Your task to perform on an android device: What's the weather? Image 0: 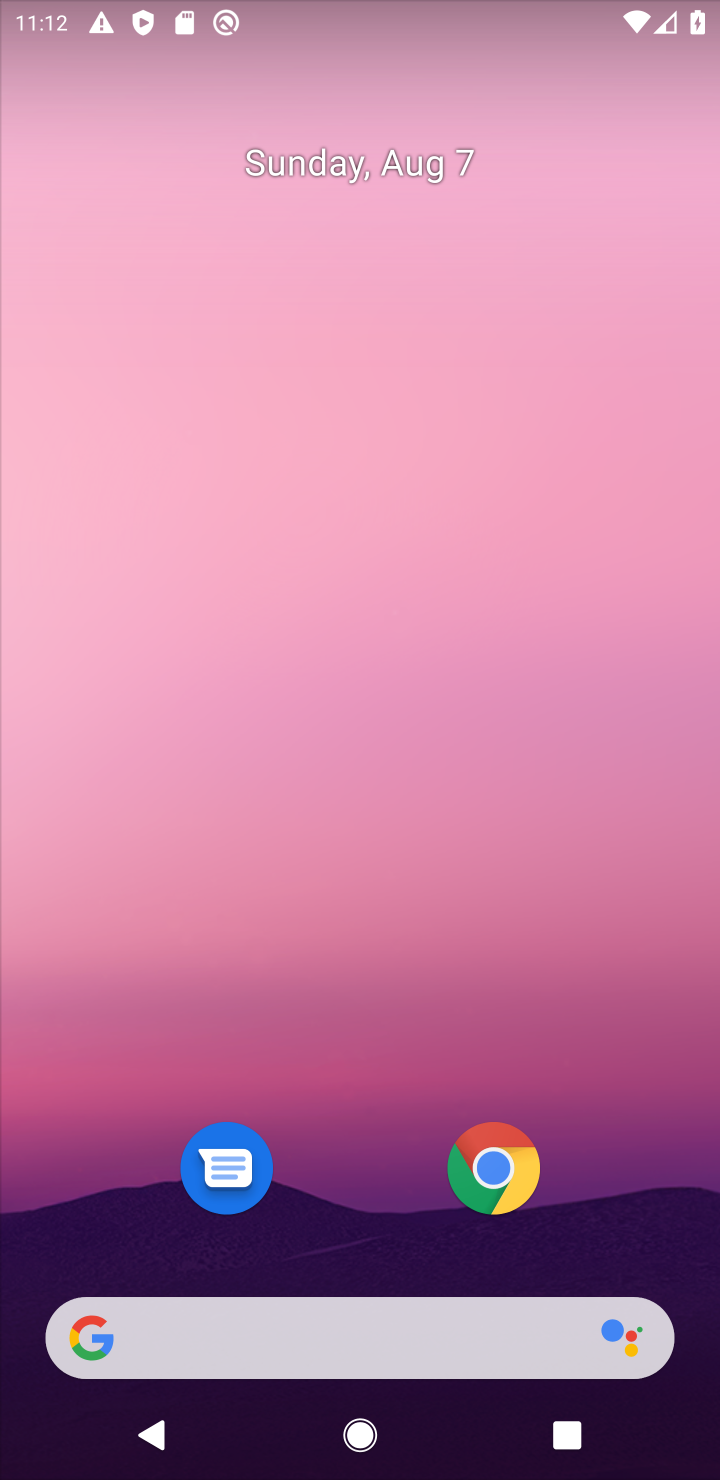
Step 0: click (196, 1317)
Your task to perform on an android device: What's the weather? Image 1: 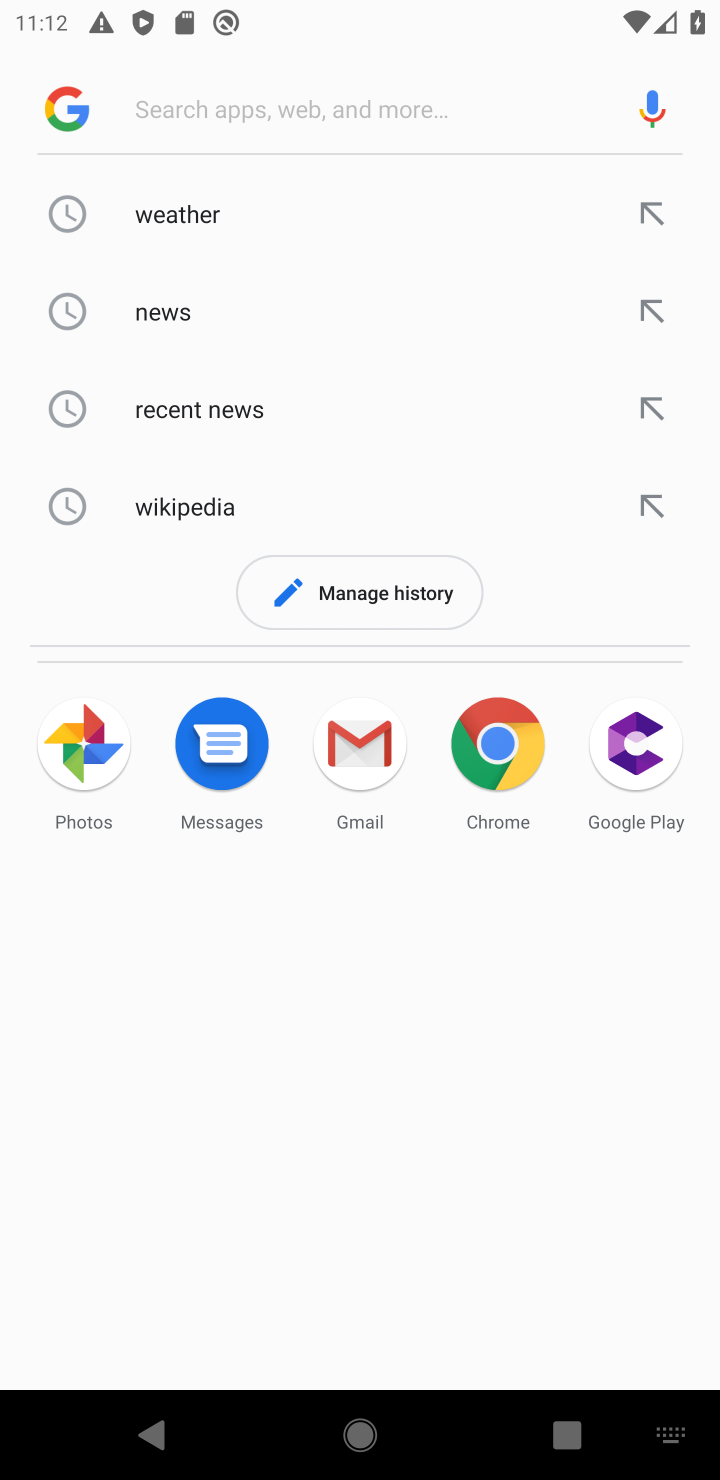
Step 1: type "What's the weather?"
Your task to perform on an android device: What's the weather? Image 2: 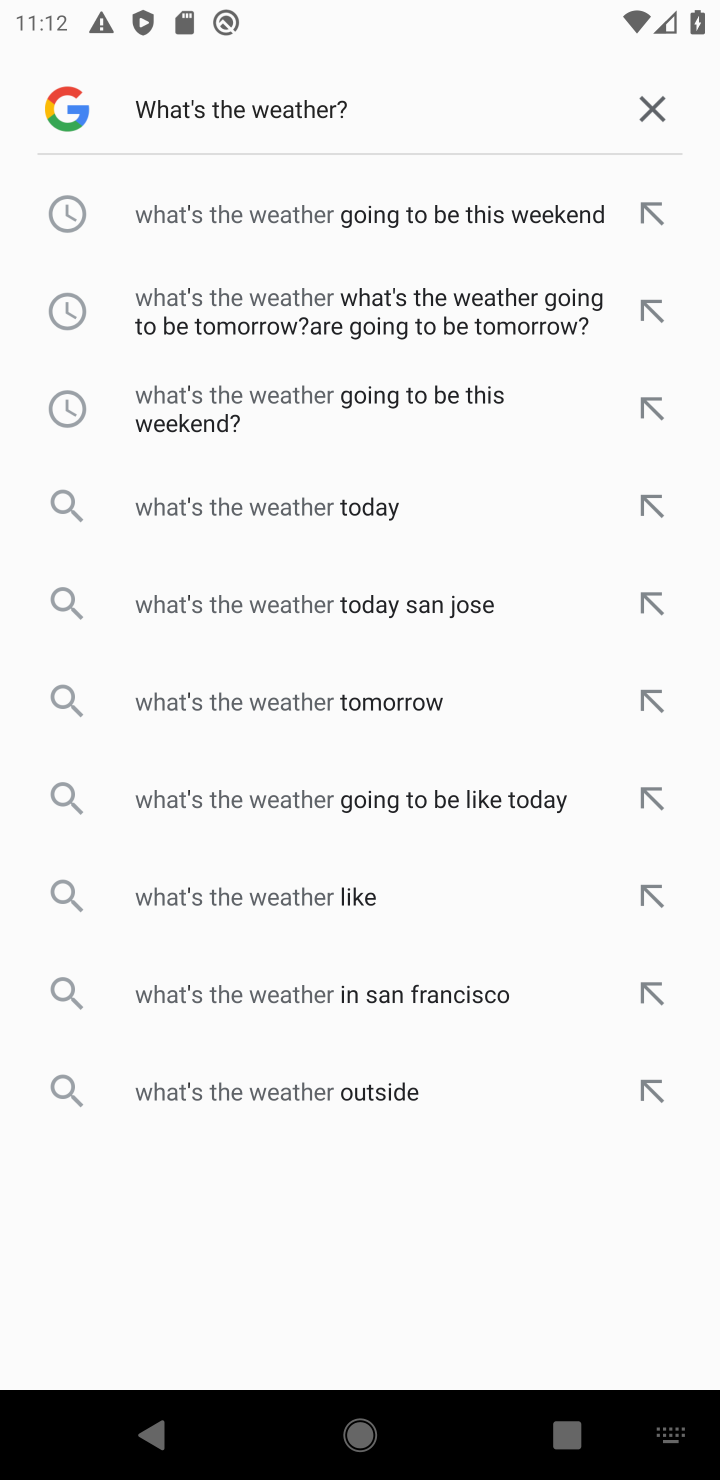
Step 2: click (235, 316)
Your task to perform on an android device: What's the weather? Image 3: 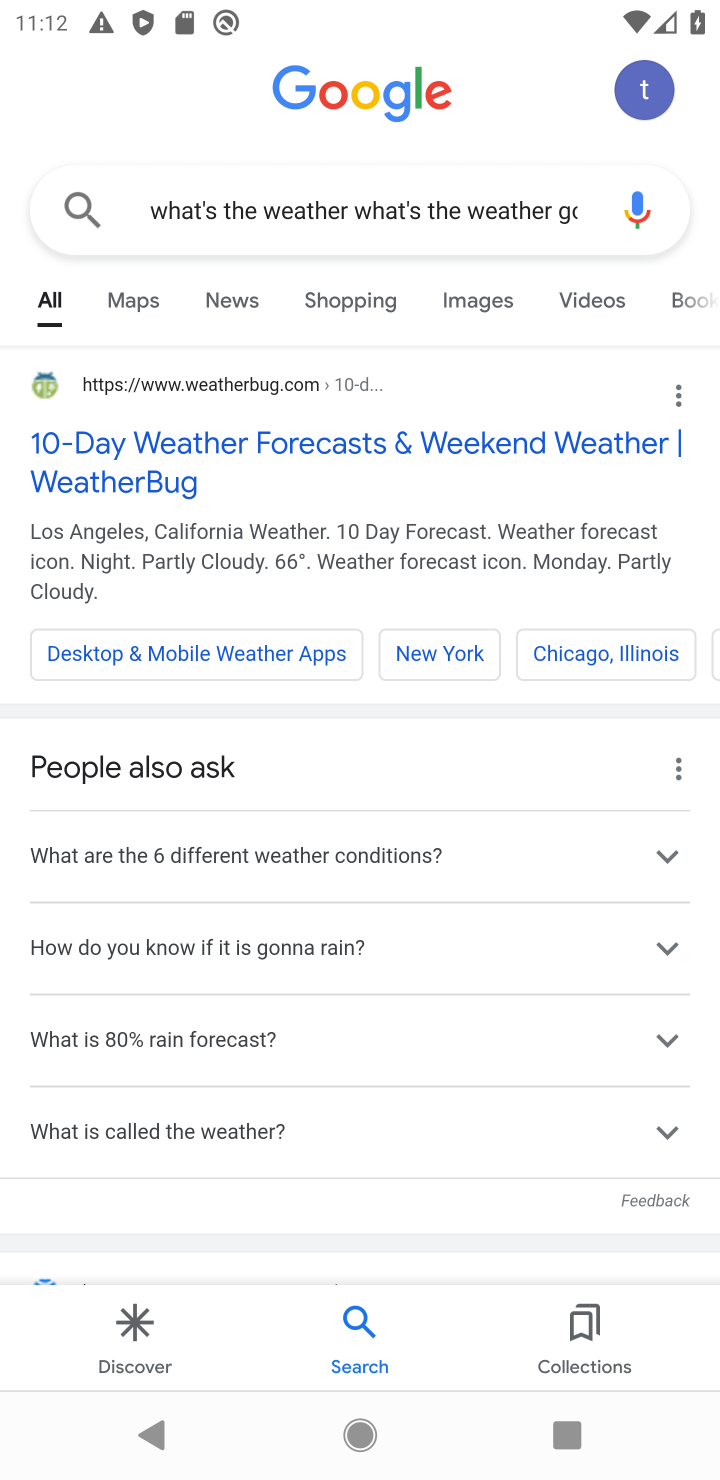
Step 3: task complete